Your task to perform on an android device: set an alarm Image 0: 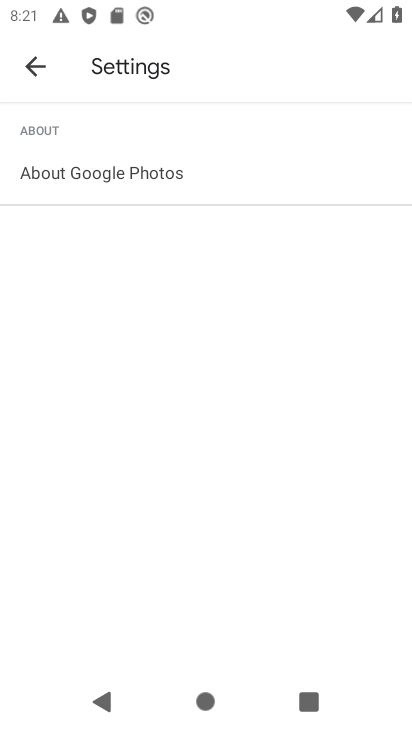
Step 0: press back button
Your task to perform on an android device: set an alarm Image 1: 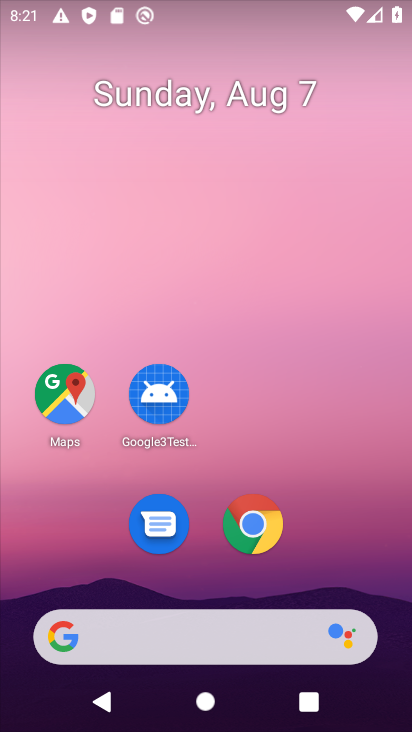
Step 1: drag from (230, 598) to (146, 85)
Your task to perform on an android device: set an alarm Image 2: 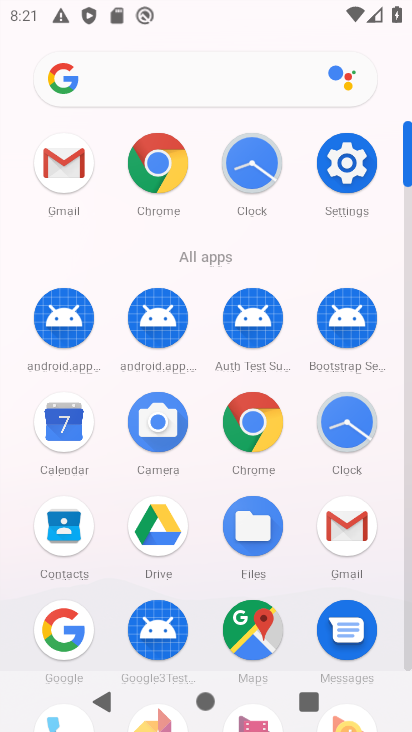
Step 2: click (354, 446)
Your task to perform on an android device: set an alarm Image 3: 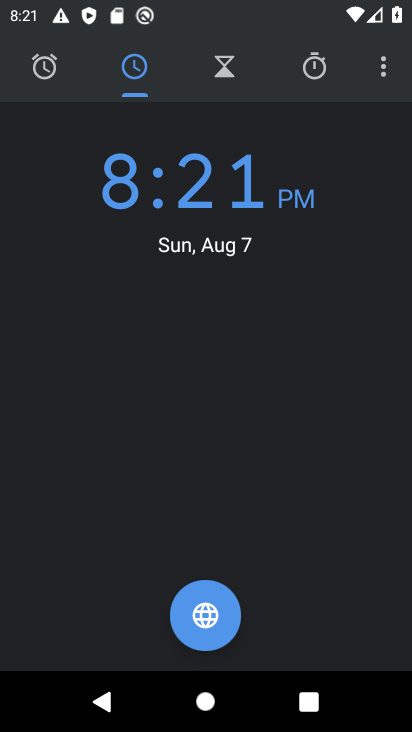
Step 3: click (48, 74)
Your task to perform on an android device: set an alarm Image 4: 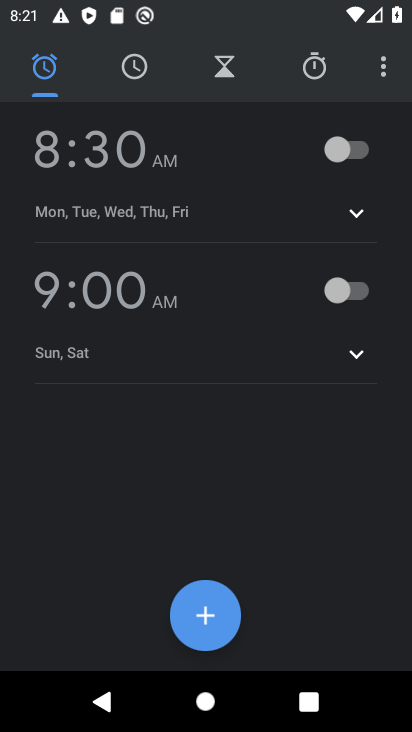
Step 4: click (172, 604)
Your task to perform on an android device: set an alarm Image 5: 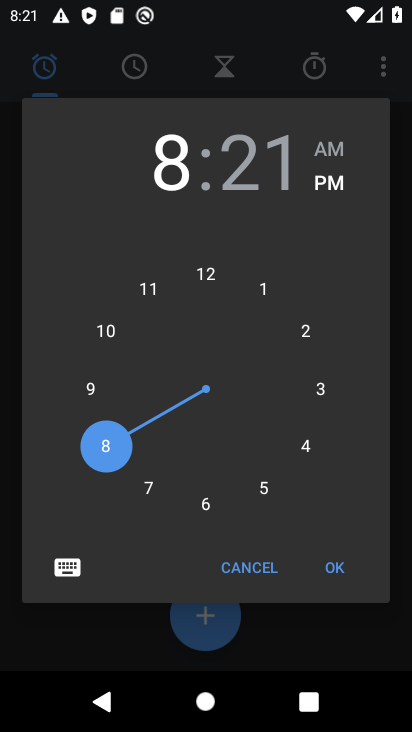
Step 5: click (330, 570)
Your task to perform on an android device: set an alarm Image 6: 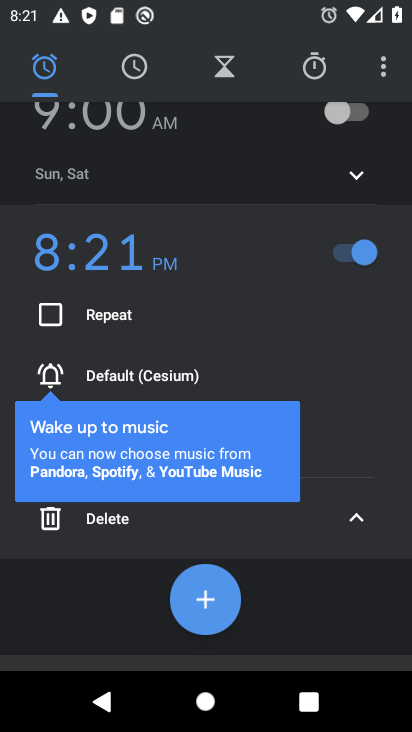
Step 6: task complete